Your task to perform on an android device: check battery use Image 0: 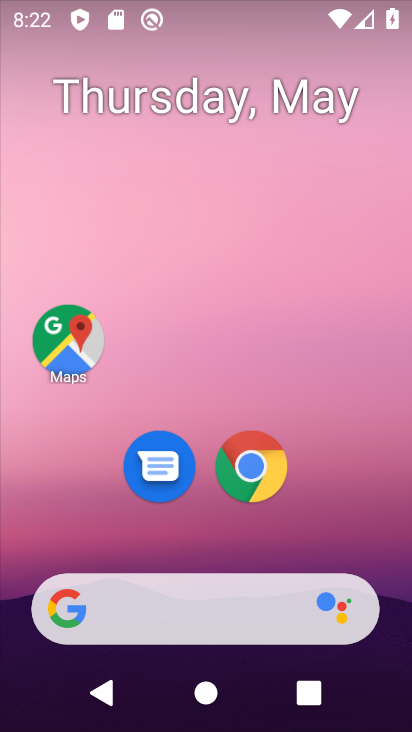
Step 0: drag from (370, 515) to (313, 90)
Your task to perform on an android device: check battery use Image 1: 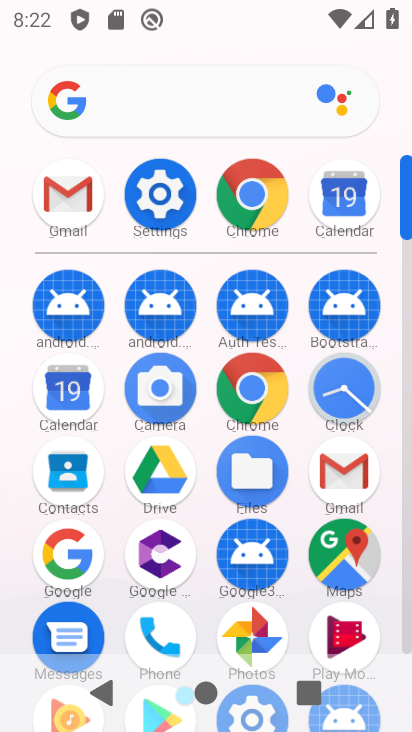
Step 1: click (179, 194)
Your task to perform on an android device: check battery use Image 2: 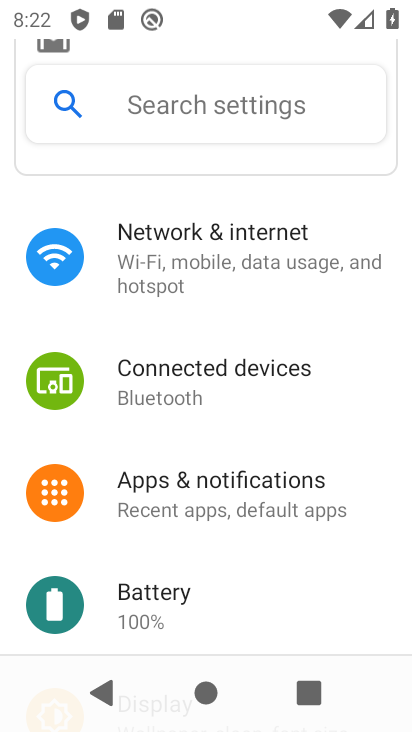
Step 2: click (191, 610)
Your task to perform on an android device: check battery use Image 3: 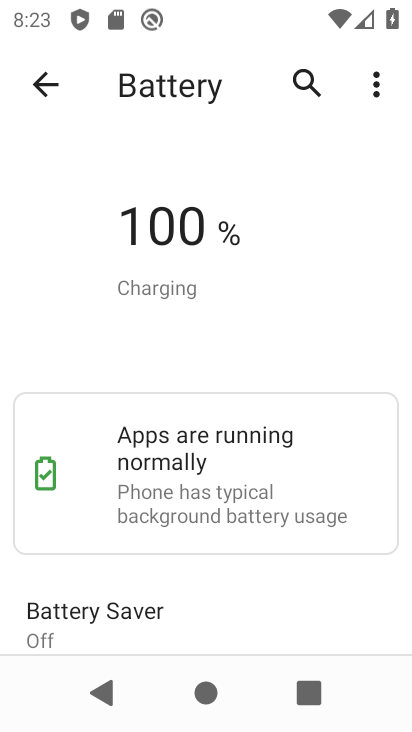
Step 3: task complete